Your task to perform on an android device: Empty the shopping cart on amazon.com. Add amazon basics triple a to the cart on amazon.com Image 0: 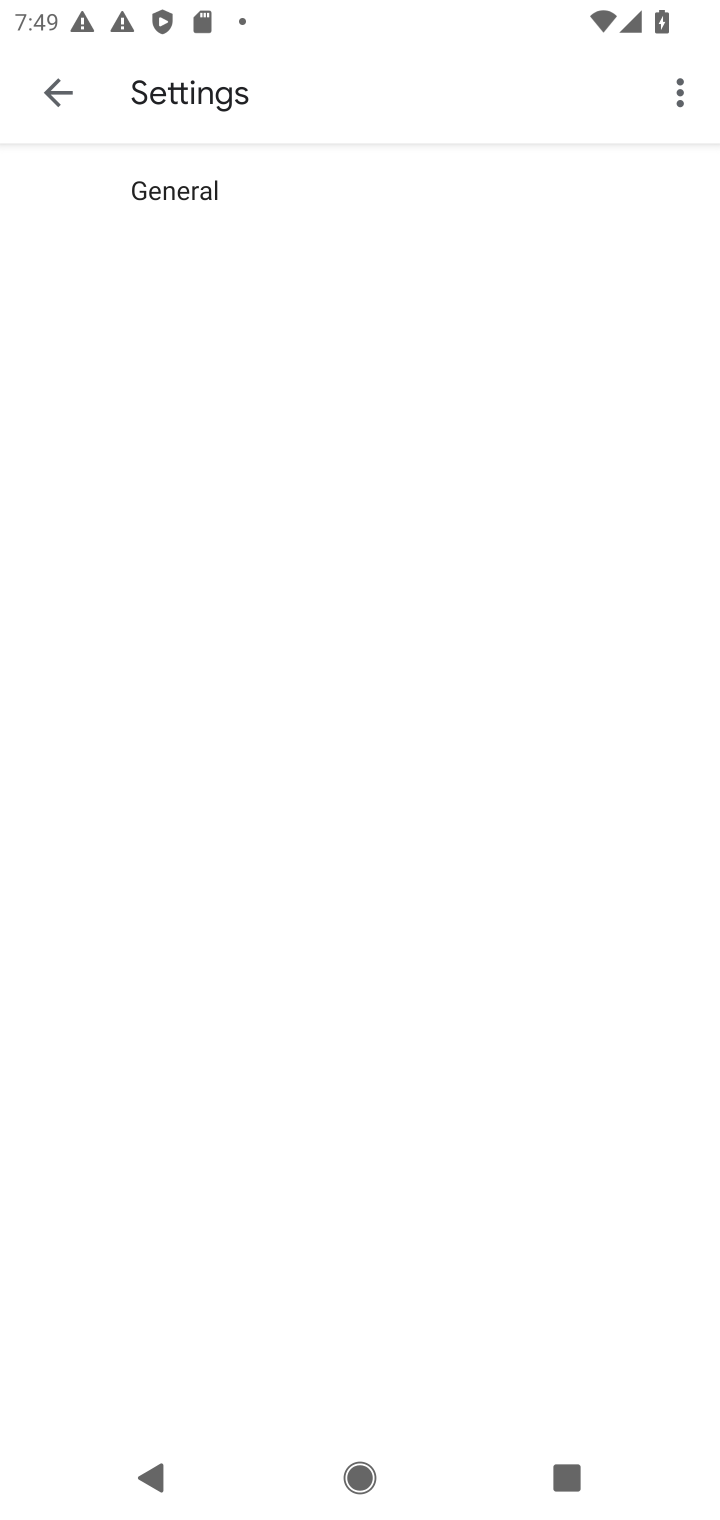
Step 0: press home button
Your task to perform on an android device: Empty the shopping cart on amazon.com. Add amazon basics triple a to the cart on amazon.com Image 1: 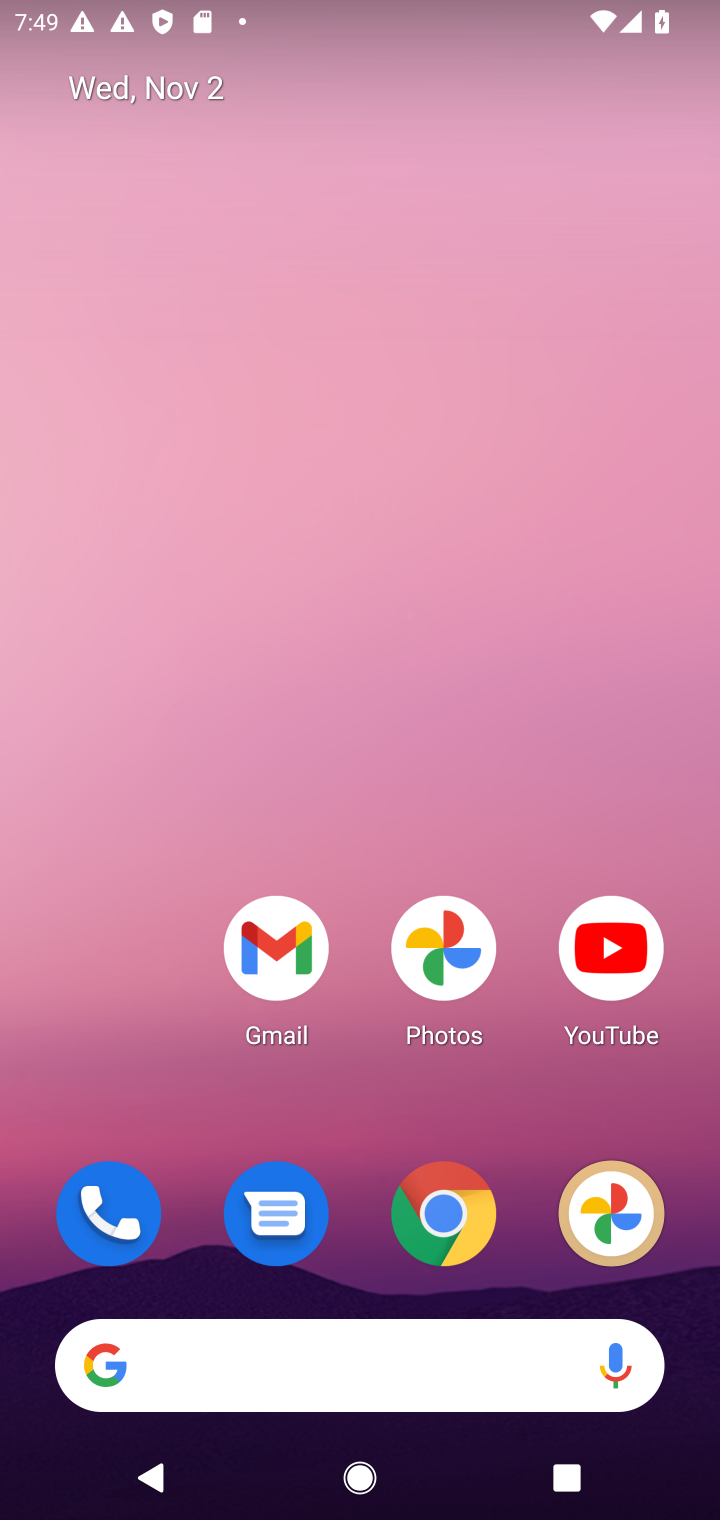
Step 1: click (439, 1228)
Your task to perform on an android device: Empty the shopping cart on amazon.com. Add amazon basics triple a to the cart on amazon.com Image 2: 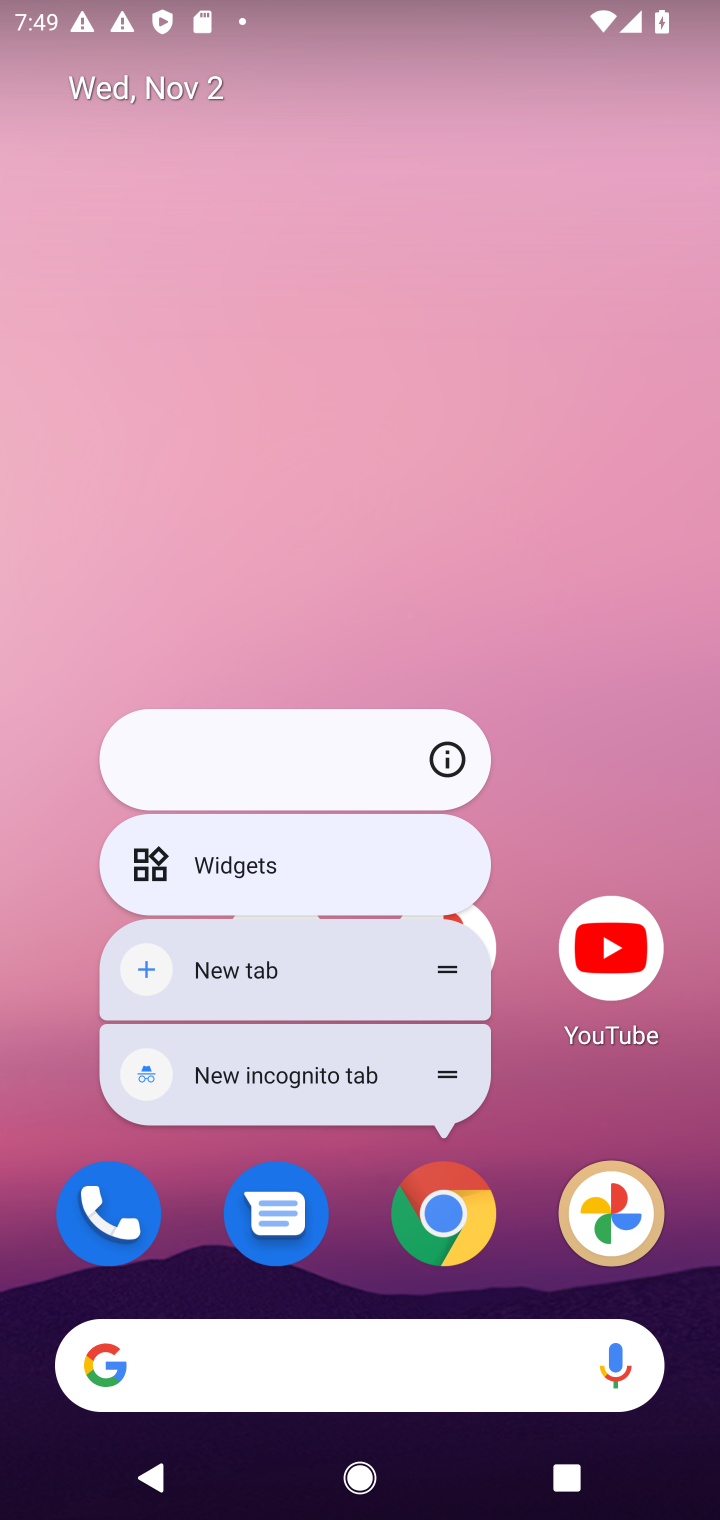
Step 2: click (439, 1228)
Your task to perform on an android device: Empty the shopping cart on amazon.com. Add amazon basics triple a to the cart on amazon.com Image 3: 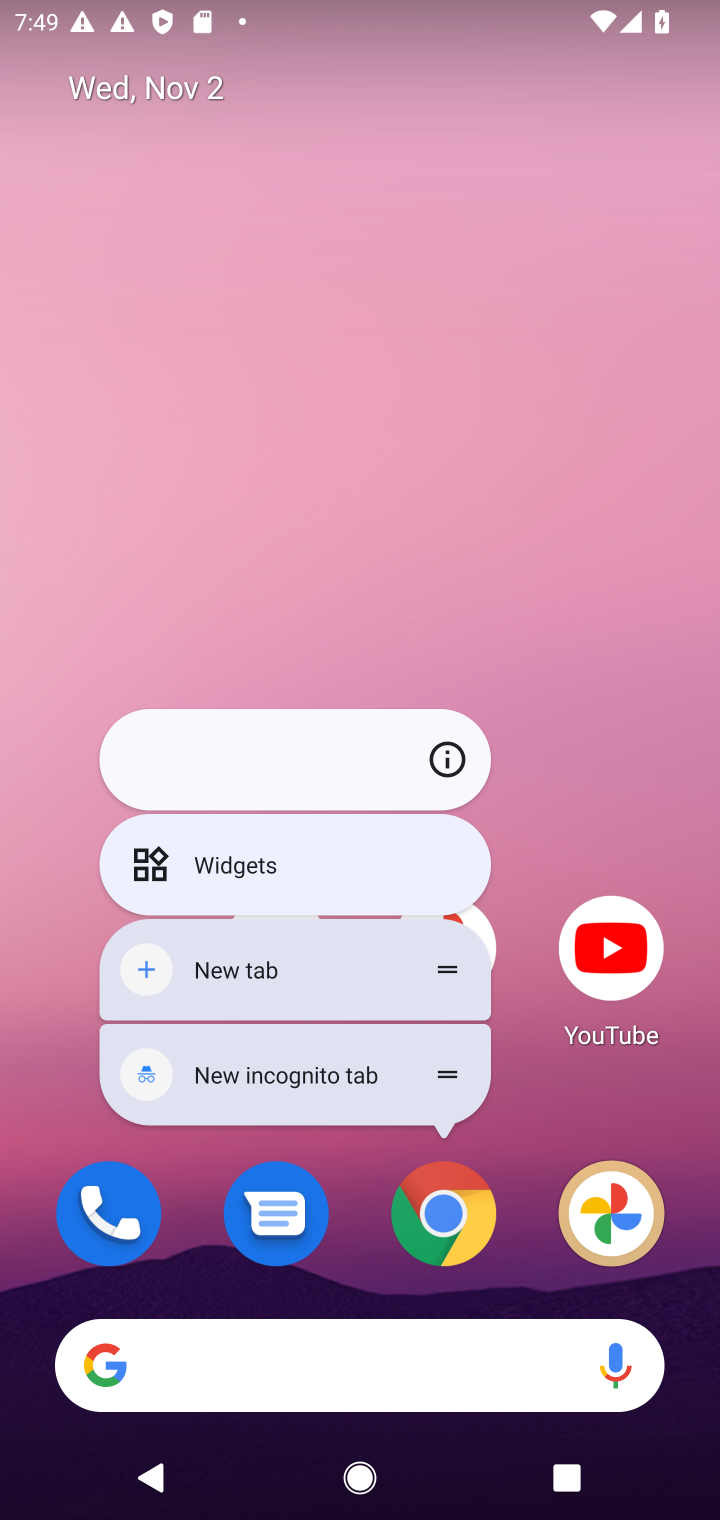
Step 3: click (439, 1228)
Your task to perform on an android device: Empty the shopping cart on amazon.com. Add amazon basics triple a to the cart on amazon.com Image 4: 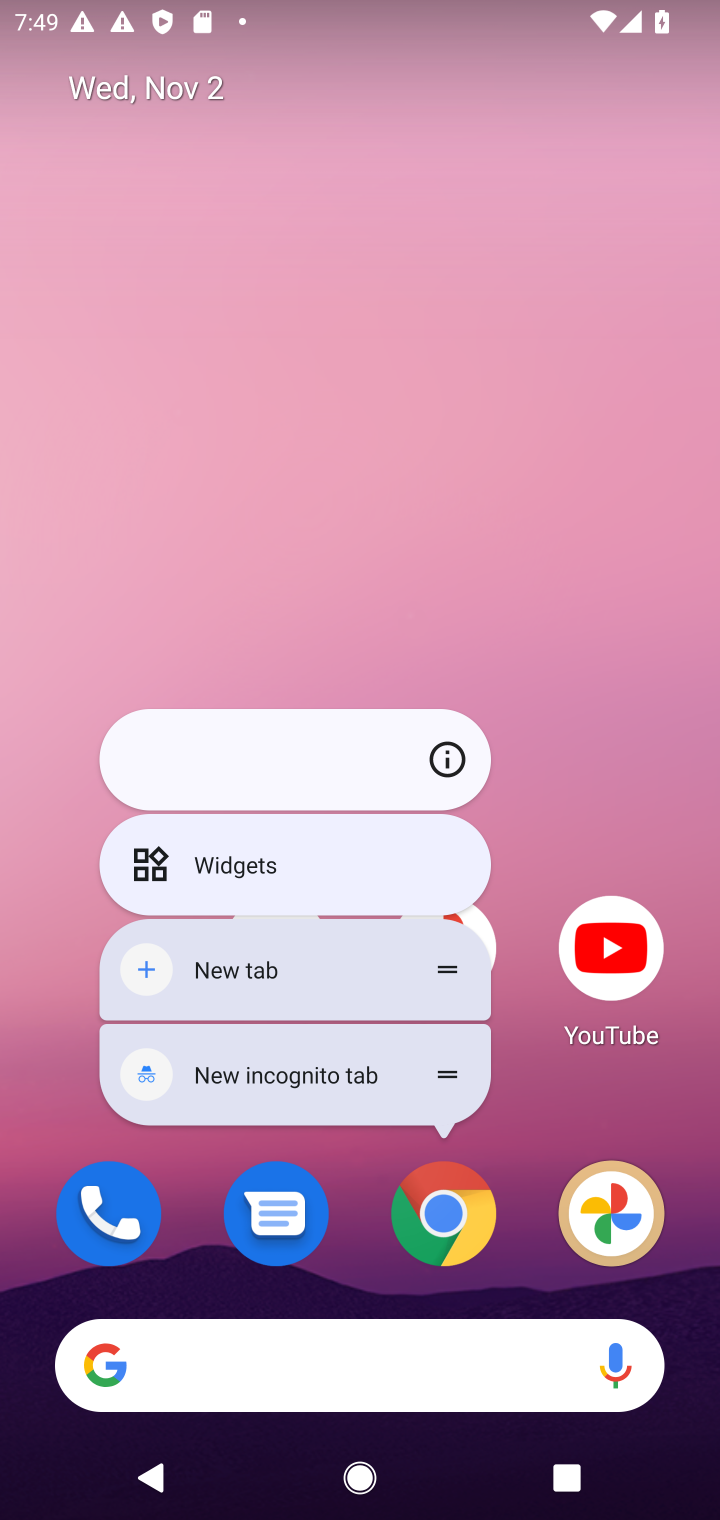
Step 4: click (439, 1228)
Your task to perform on an android device: Empty the shopping cart on amazon.com. Add amazon basics triple a to the cart on amazon.com Image 5: 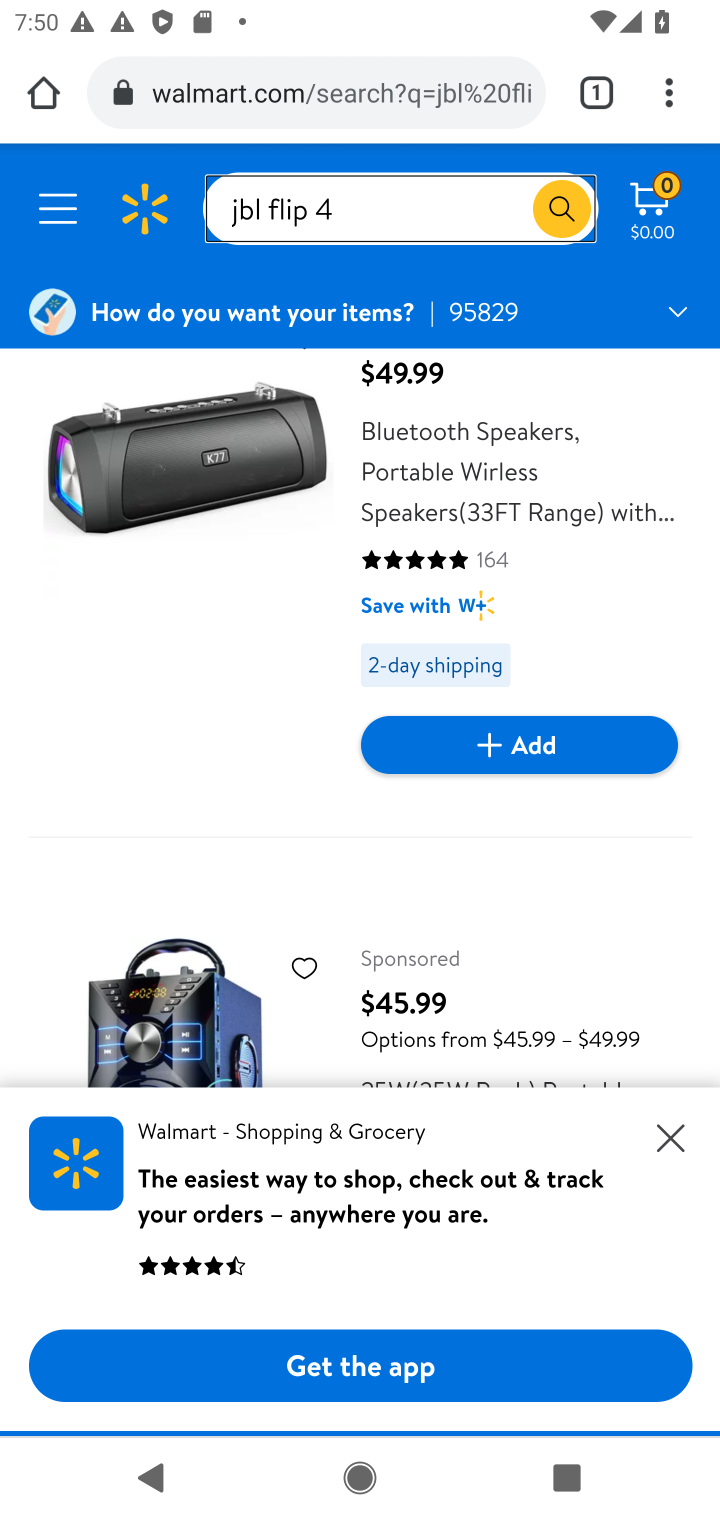
Step 5: click (293, 83)
Your task to perform on an android device: Empty the shopping cart on amazon.com. Add amazon basics triple a to the cart on amazon.com Image 6: 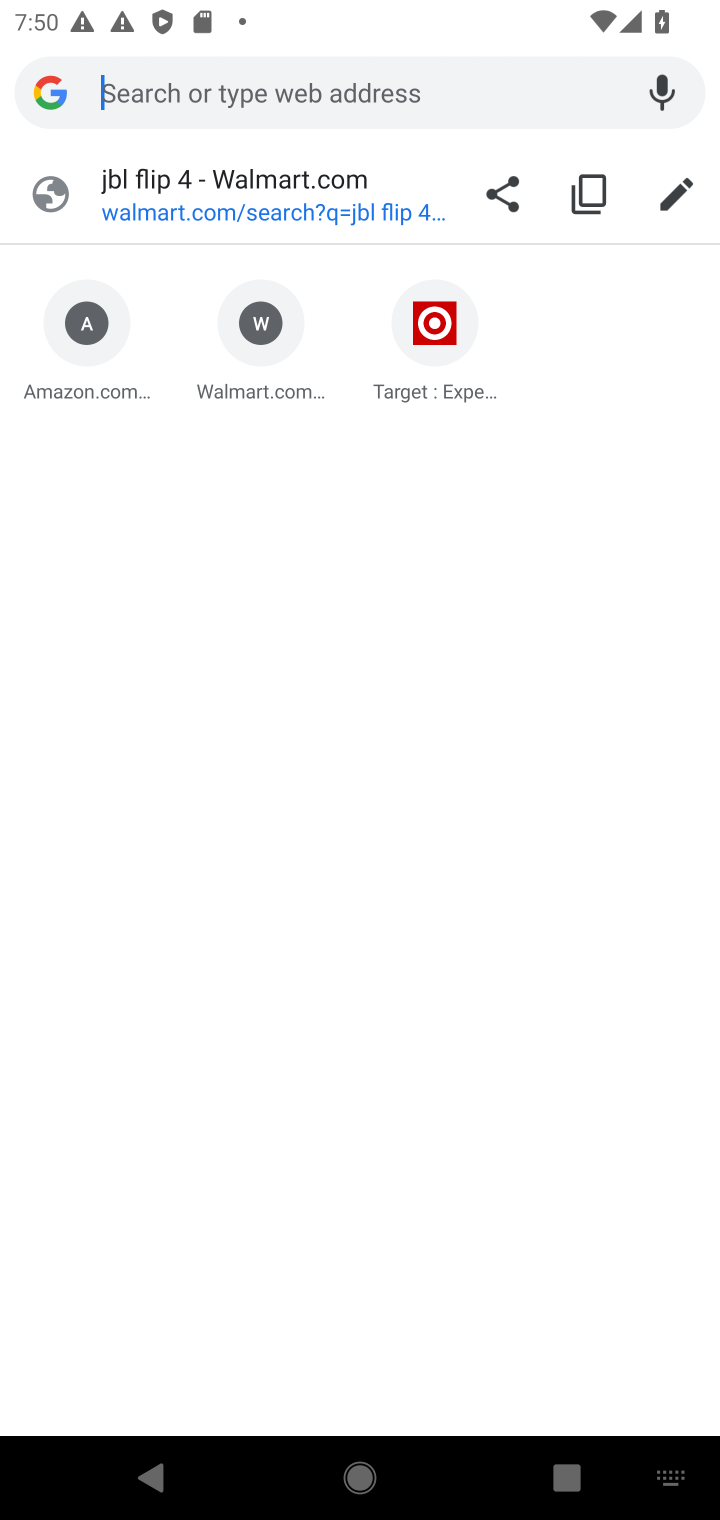
Step 6: type "amazon.com"
Your task to perform on an android device: Empty the shopping cart on amazon.com. Add amazon basics triple a to the cart on amazon.com Image 7: 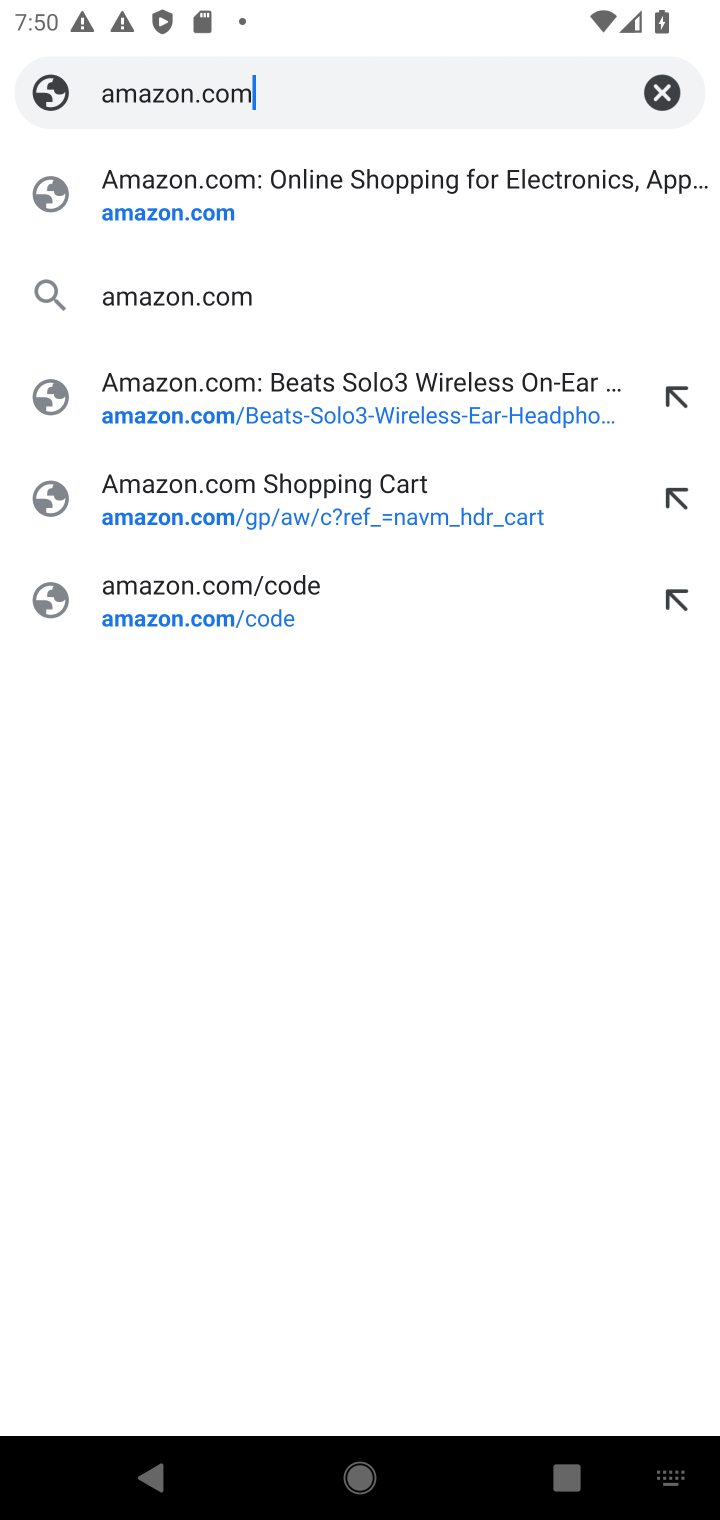
Step 7: click (127, 220)
Your task to perform on an android device: Empty the shopping cart on amazon.com. Add amazon basics triple a to the cart on amazon.com Image 8: 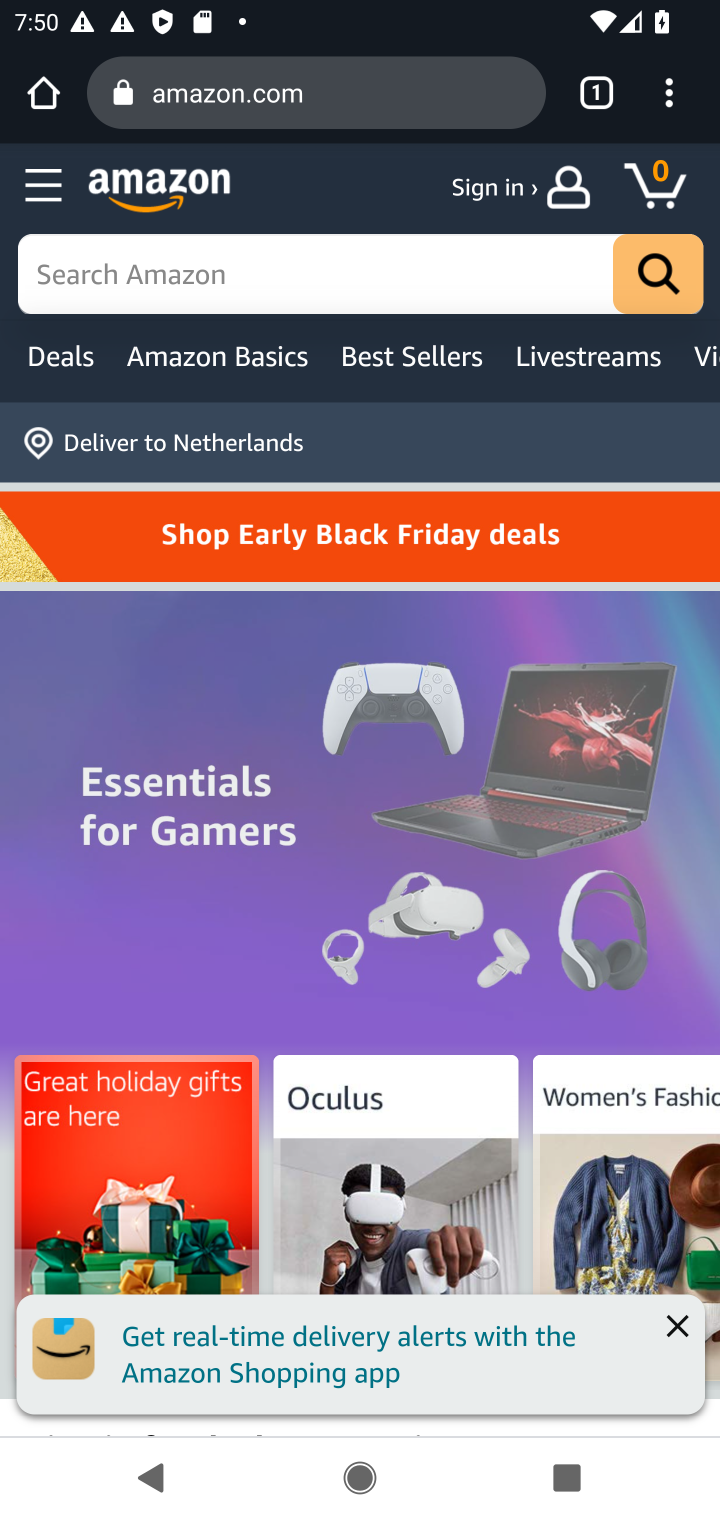
Step 8: click (642, 175)
Your task to perform on an android device: Empty the shopping cart on amazon.com. Add amazon basics triple a to the cart on amazon.com Image 9: 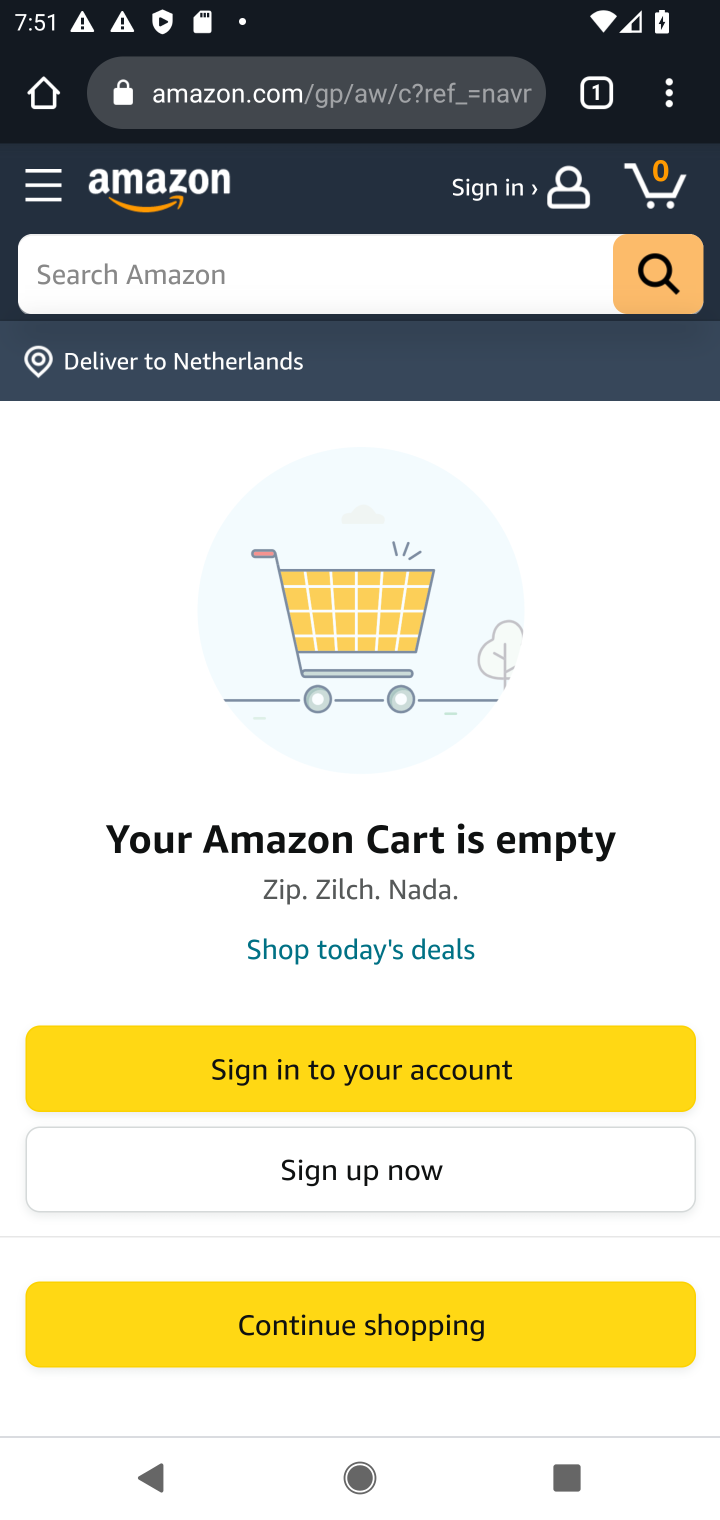
Step 9: click (230, 270)
Your task to perform on an android device: Empty the shopping cart on amazon.com. Add amazon basics triple a to the cart on amazon.com Image 10: 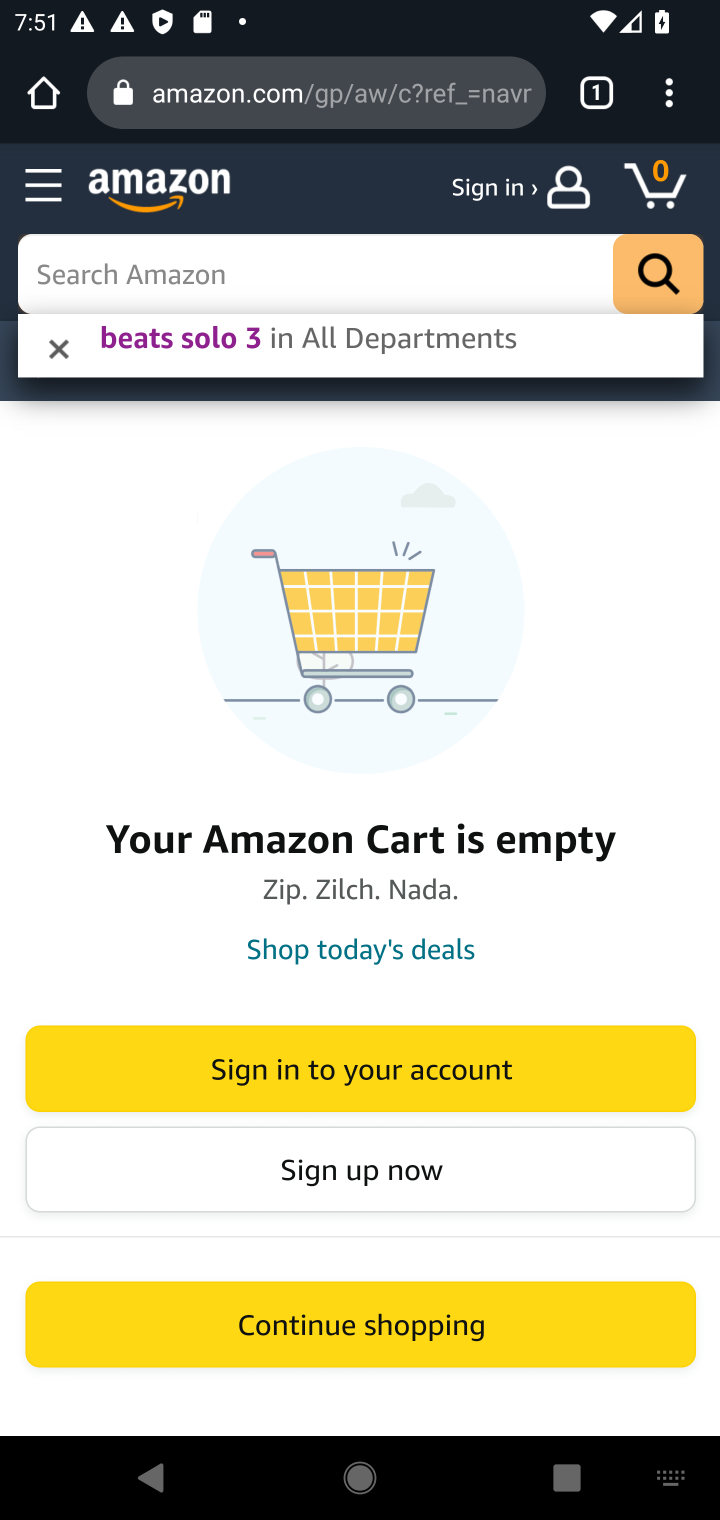
Step 10: type "amazon basics triple a"
Your task to perform on an android device: Empty the shopping cart on amazon.com. Add amazon basics triple a to the cart on amazon.com Image 11: 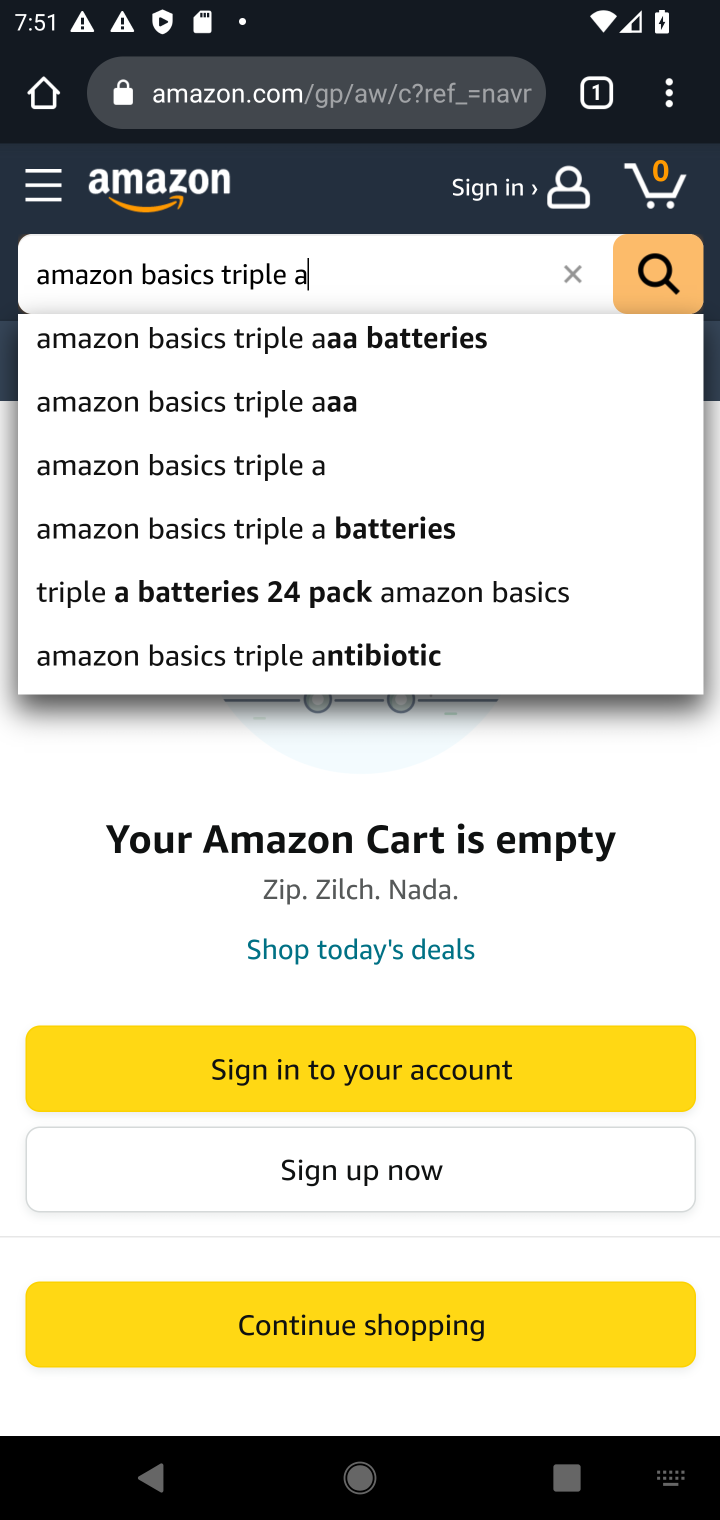
Step 11: click (178, 467)
Your task to perform on an android device: Empty the shopping cart on amazon.com. Add amazon basics triple a to the cart on amazon.com Image 12: 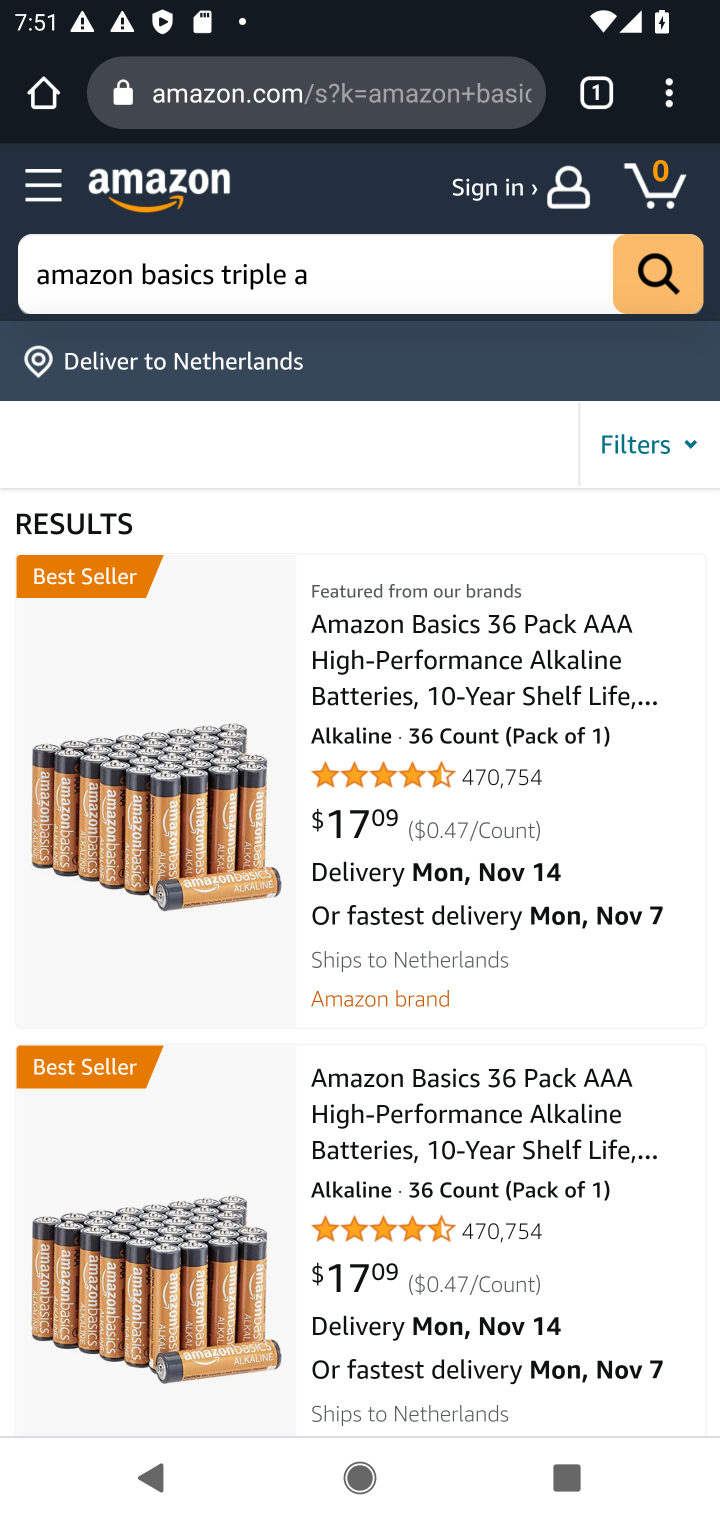
Step 12: click (363, 799)
Your task to perform on an android device: Empty the shopping cart on amazon.com. Add amazon basics triple a to the cart on amazon.com Image 13: 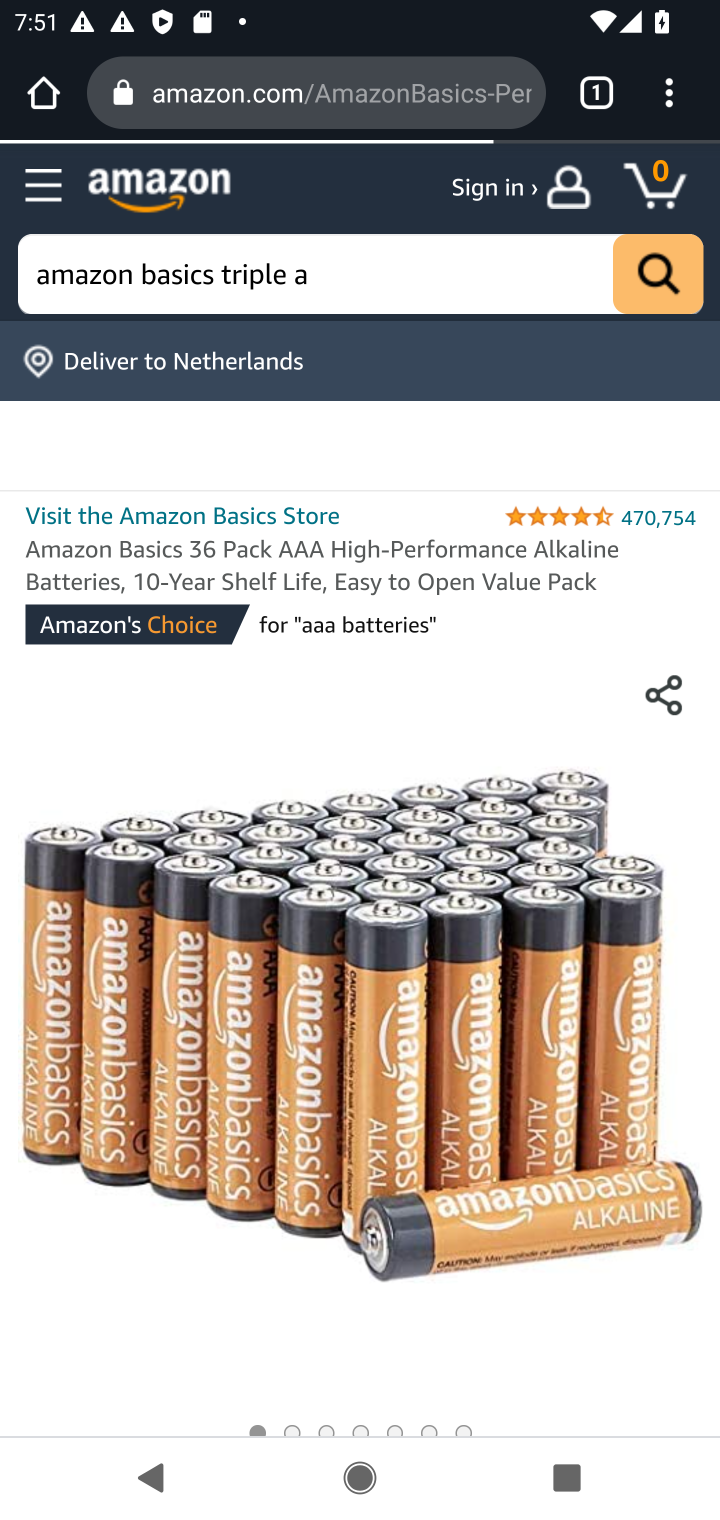
Step 13: drag from (346, 1041) to (350, 421)
Your task to perform on an android device: Empty the shopping cart on amazon.com. Add amazon basics triple a to the cart on amazon.com Image 14: 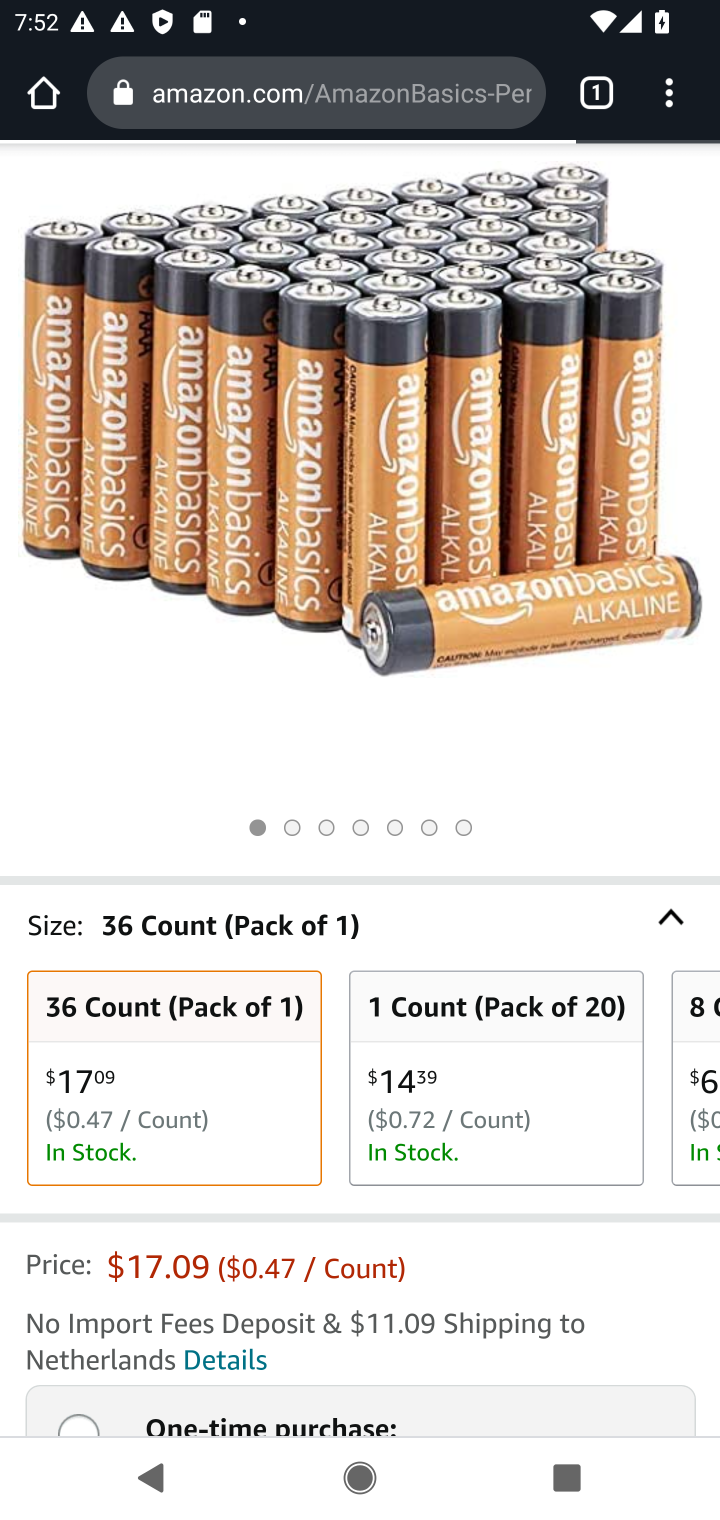
Step 14: drag from (334, 1057) to (355, 435)
Your task to perform on an android device: Empty the shopping cart on amazon.com. Add amazon basics triple a to the cart on amazon.com Image 15: 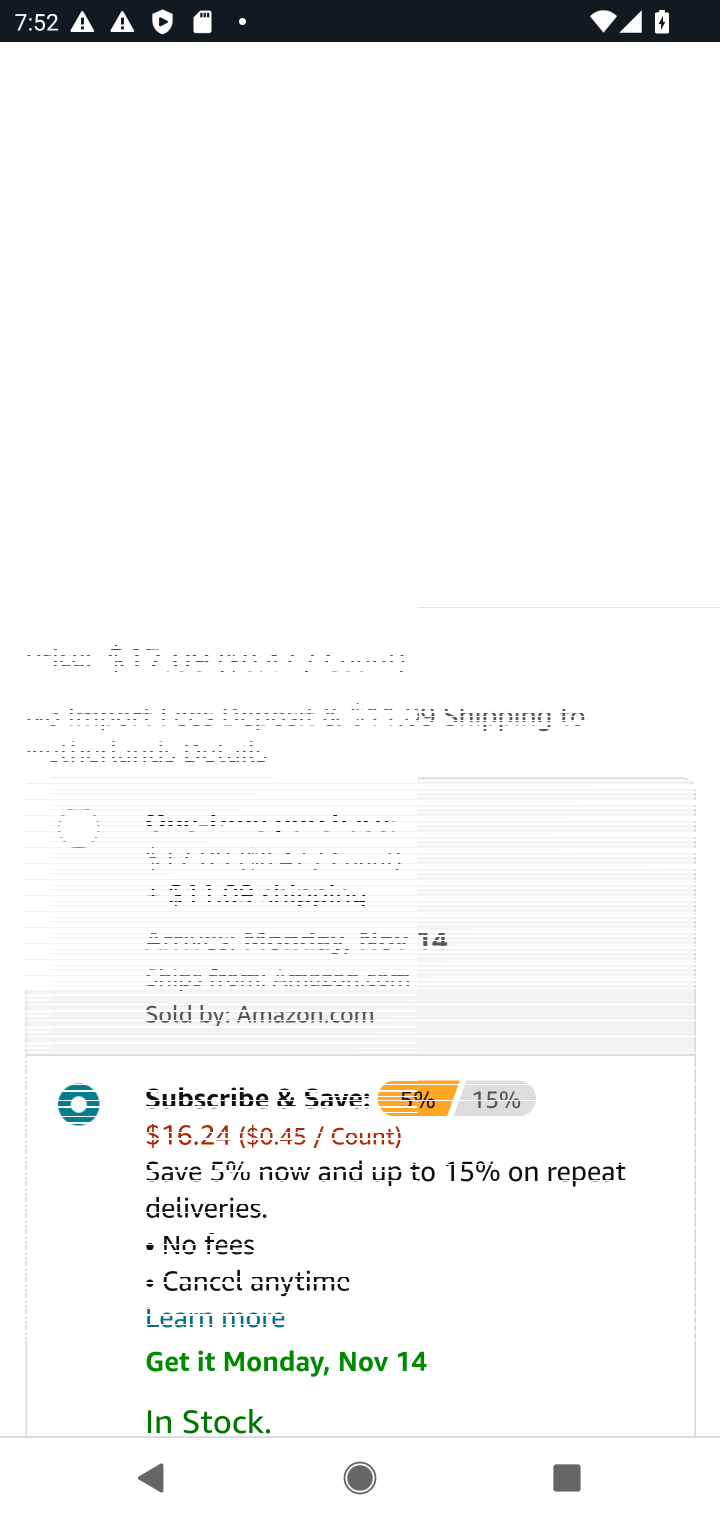
Step 15: click (87, 826)
Your task to perform on an android device: Empty the shopping cart on amazon.com. Add amazon basics triple a to the cart on amazon.com Image 16: 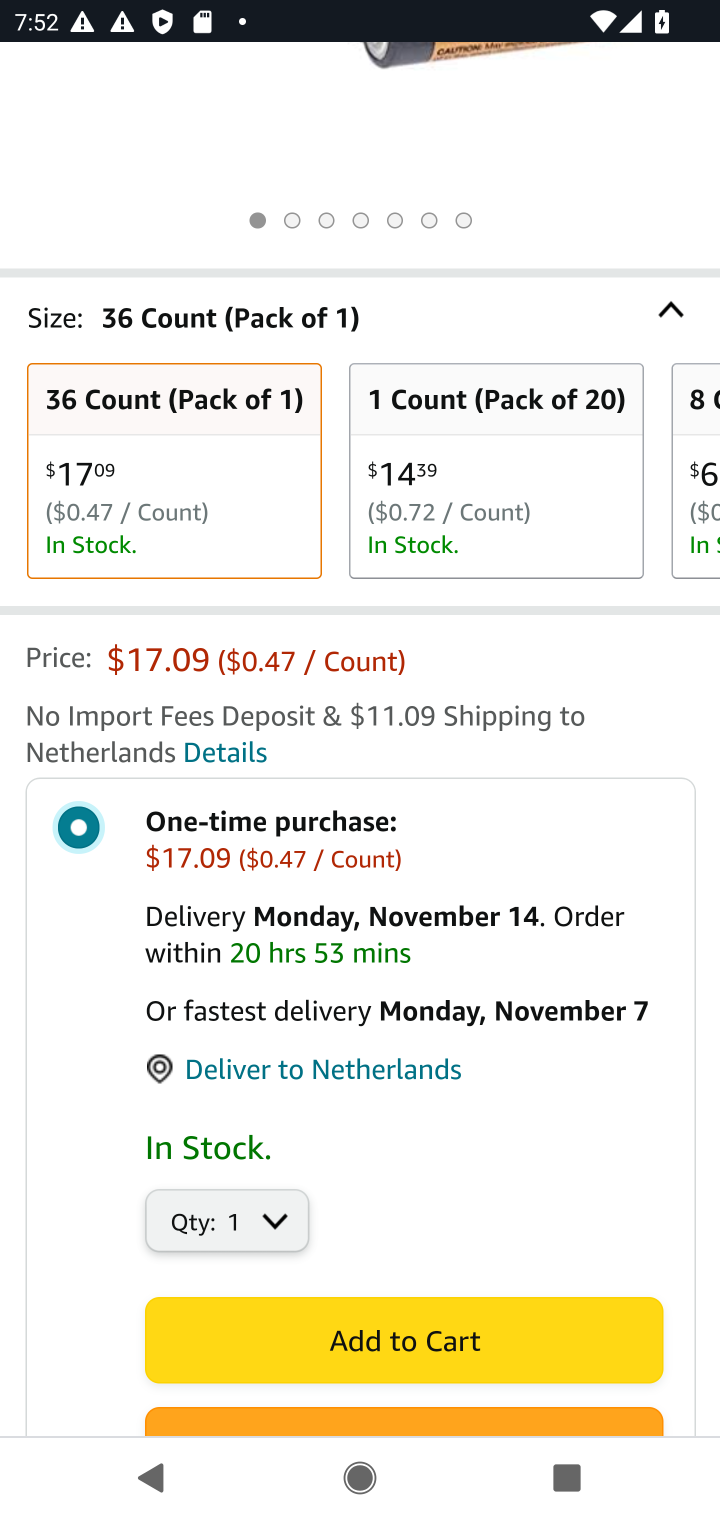
Step 16: click (438, 1329)
Your task to perform on an android device: Empty the shopping cart on amazon.com. Add amazon basics triple a to the cart on amazon.com Image 17: 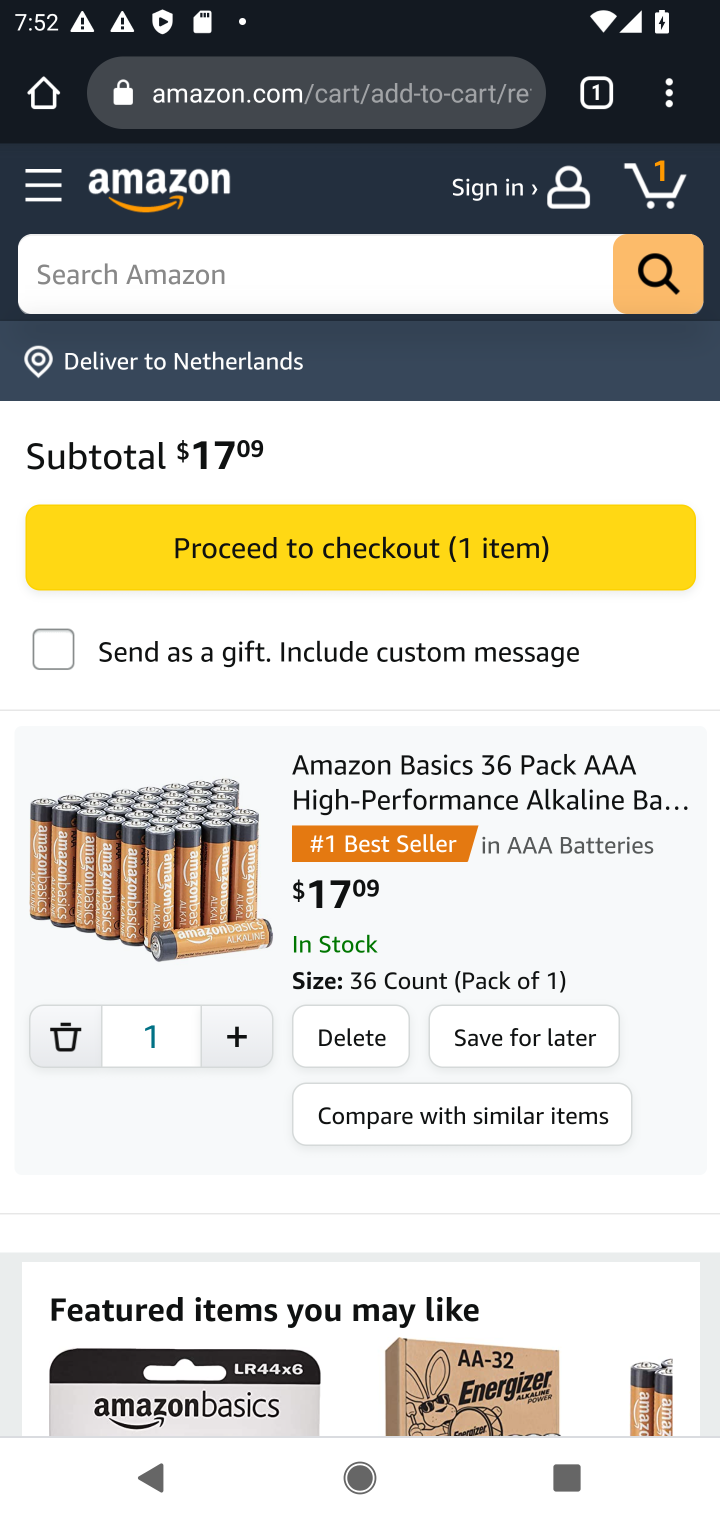
Step 17: task complete